Your task to perform on an android device: Go to network settings Image 0: 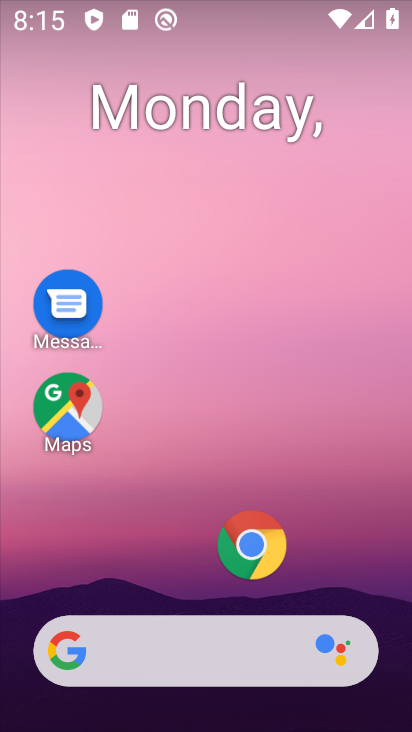
Step 0: drag from (344, 547) to (298, 3)
Your task to perform on an android device: Go to network settings Image 1: 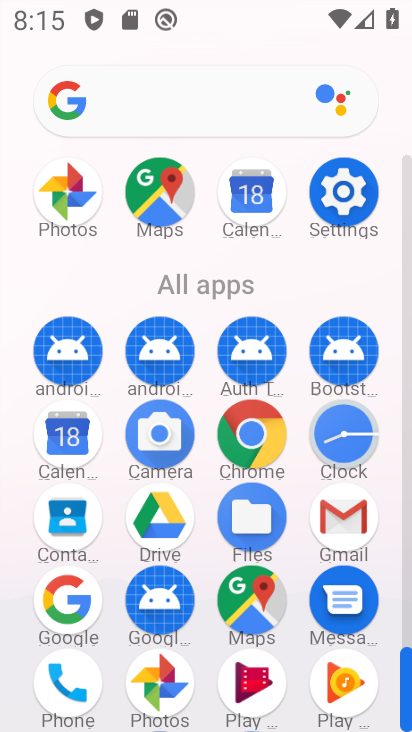
Step 1: click (353, 209)
Your task to perform on an android device: Go to network settings Image 2: 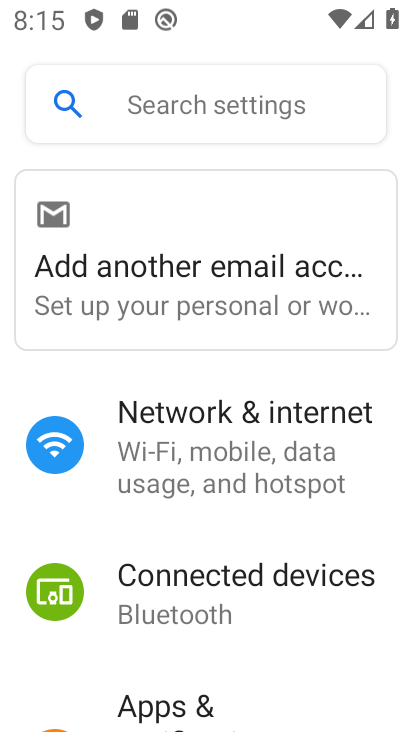
Step 2: click (151, 433)
Your task to perform on an android device: Go to network settings Image 3: 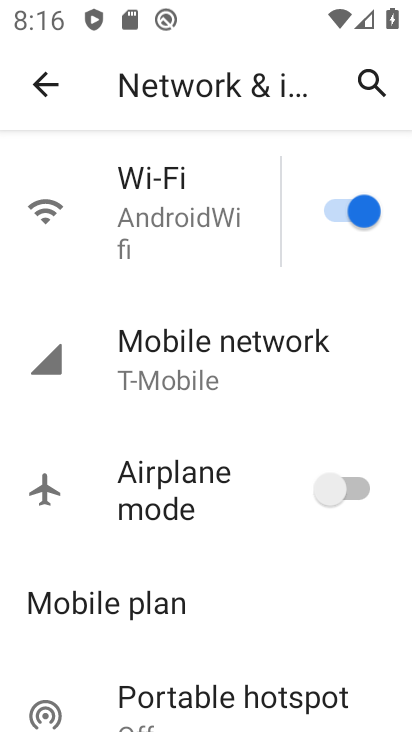
Step 3: task complete